Your task to perform on an android device: set an alarm Image 0: 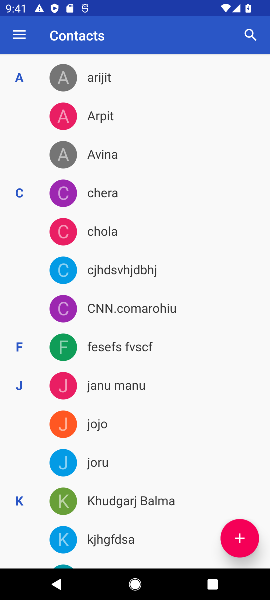
Step 0: press home button
Your task to perform on an android device: set an alarm Image 1: 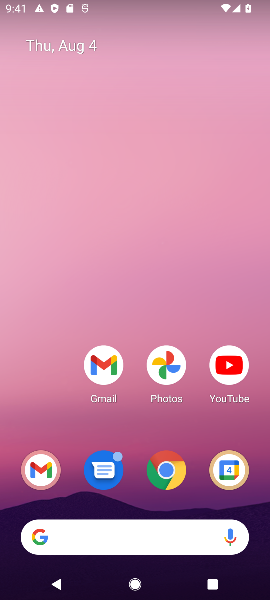
Step 1: drag from (129, 437) to (99, 45)
Your task to perform on an android device: set an alarm Image 2: 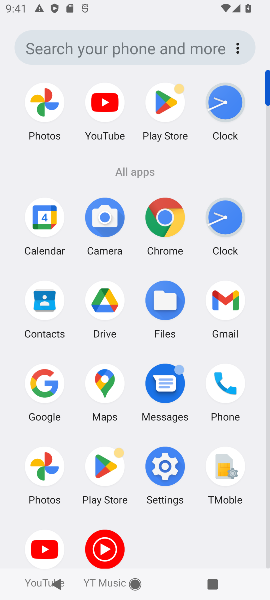
Step 2: click (218, 223)
Your task to perform on an android device: set an alarm Image 3: 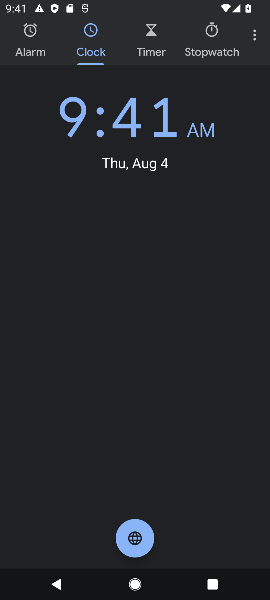
Step 3: click (43, 49)
Your task to perform on an android device: set an alarm Image 4: 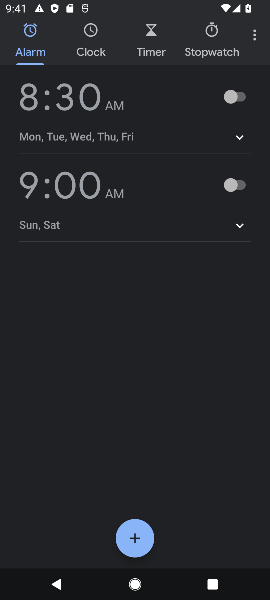
Step 4: click (137, 532)
Your task to perform on an android device: set an alarm Image 5: 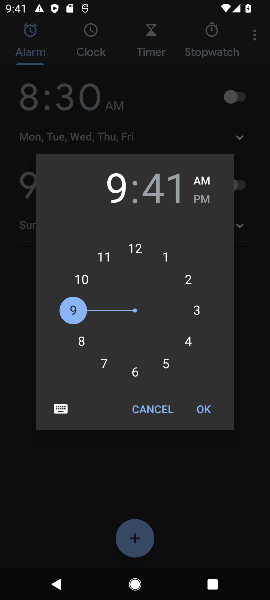
Step 5: click (205, 404)
Your task to perform on an android device: set an alarm Image 6: 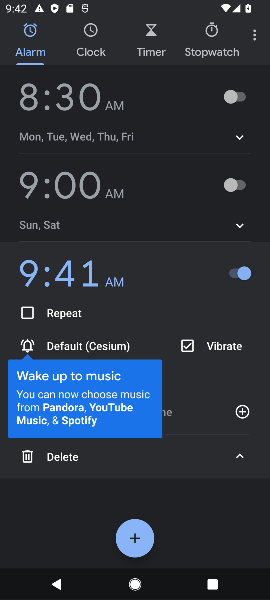
Step 6: task complete